Your task to perform on an android device: open device folders in google photos Image 0: 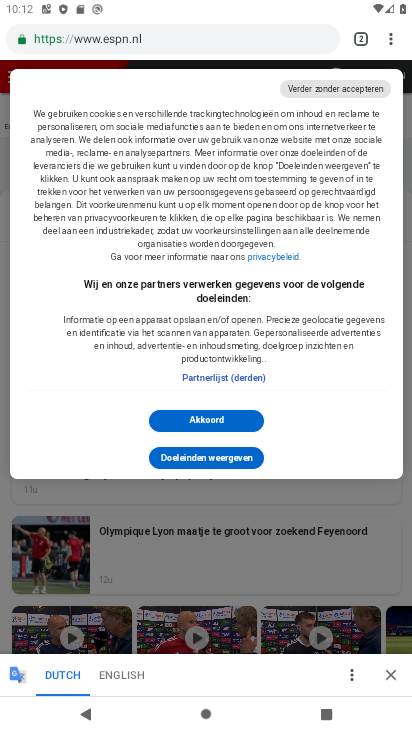
Step 0: press home button
Your task to perform on an android device: open device folders in google photos Image 1: 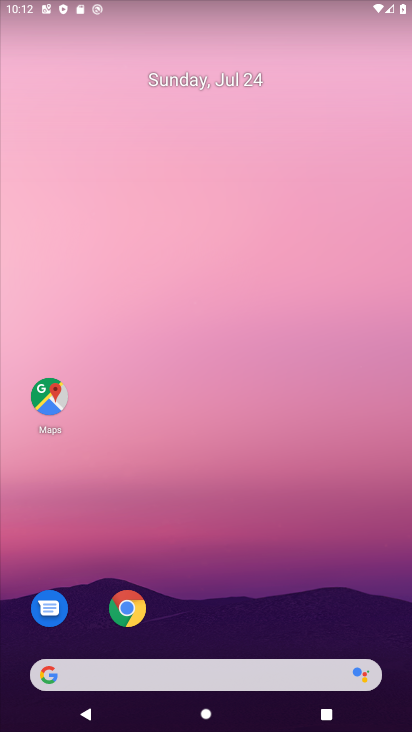
Step 1: drag from (258, 628) to (274, 18)
Your task to perform on an android device: open device folders in google photos Image 2: 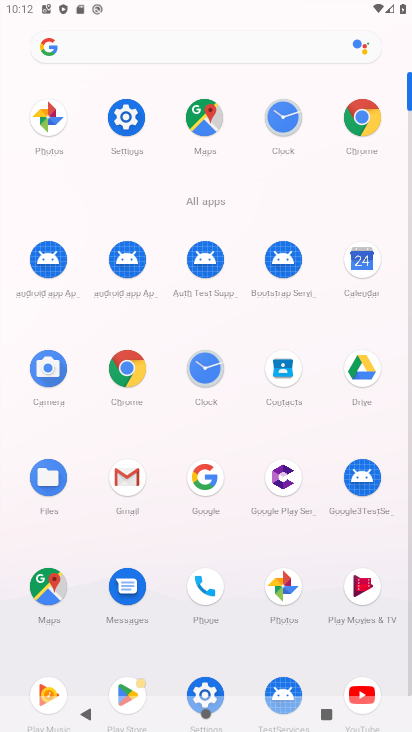
Step 2: click (281, 585)
Your task to perform on an android device: open device folders in google photos Image 3: 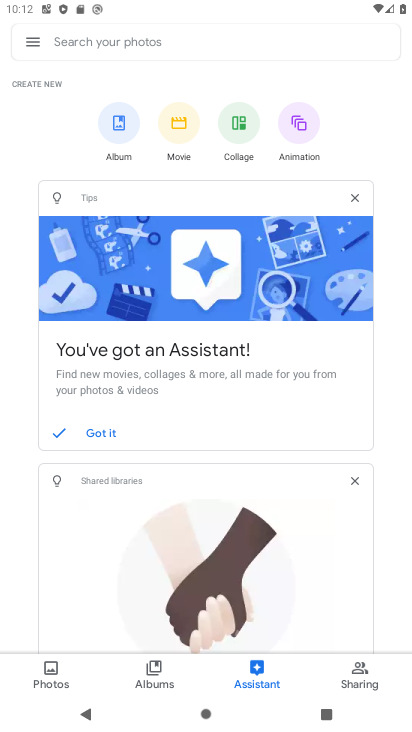
Step 3: click (34, 34)
Your task to perform on an android device: open device folders in google photos Image 4: 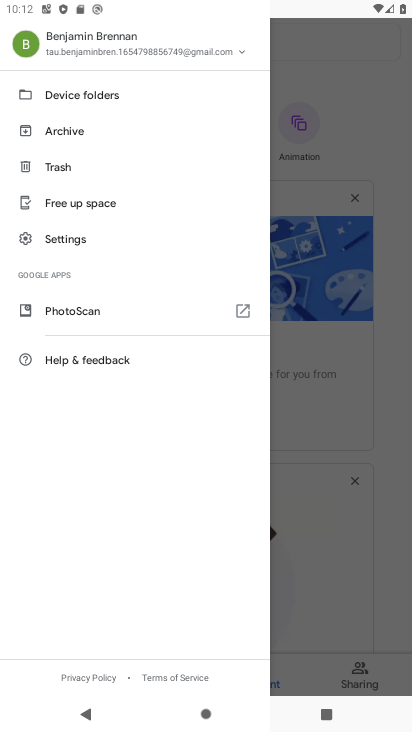
Step 4: click (54, 89)
Your task to perform on an android device: open device folders in google photos Image 5: 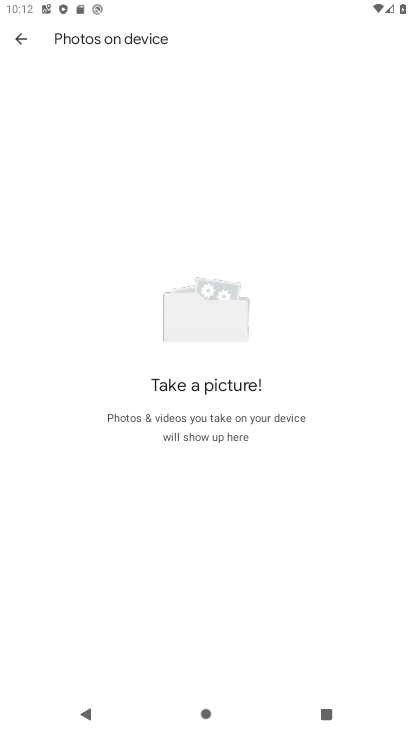
Step 5: task complete